Your task to perform on an android device: Search for sony triple a on bestbuy, select the first entry, and add it to the cart. Image 0: 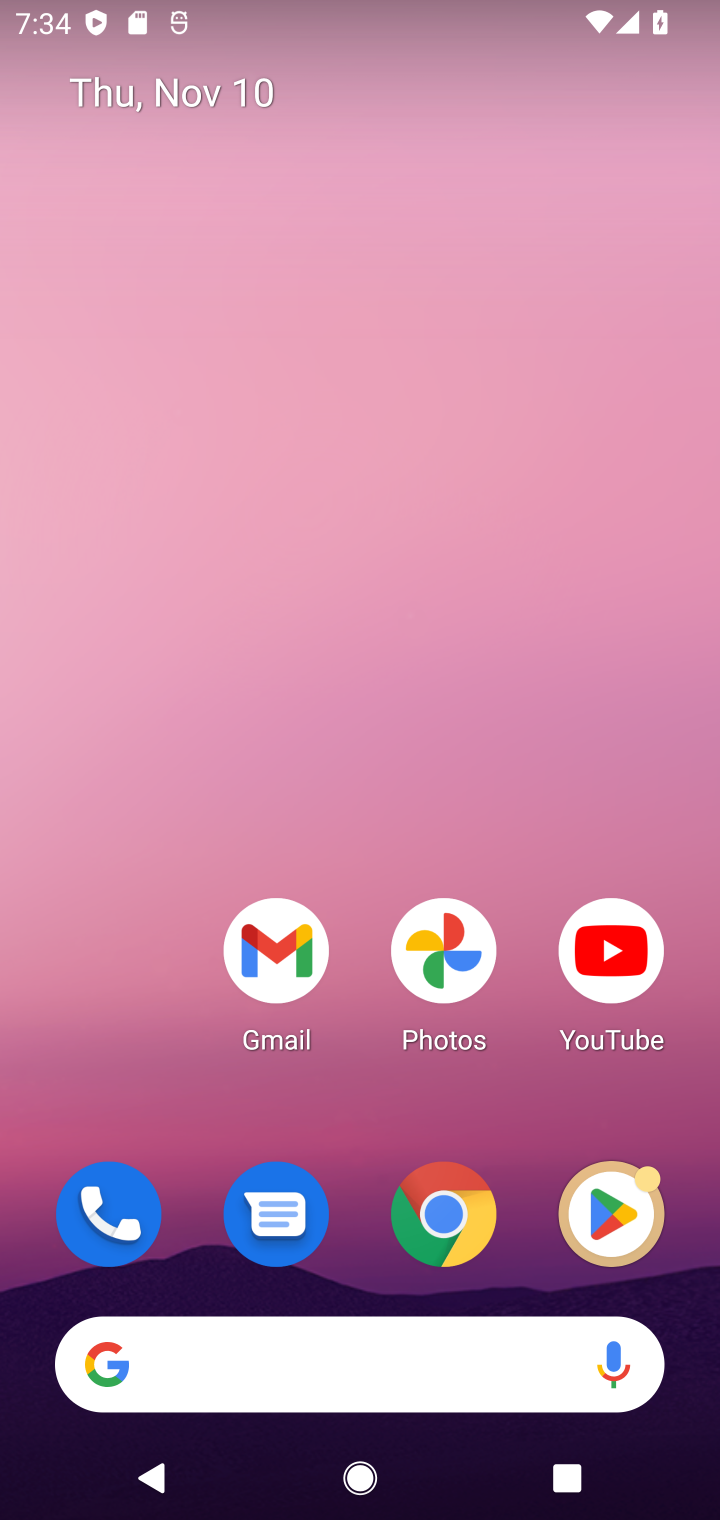
Step 0: drag from (602, 344) to (696, 118)
Your task to perform on an android device: Search for sony triple a on bestbuy, select the first entry, and add it to the cart. Image 1: 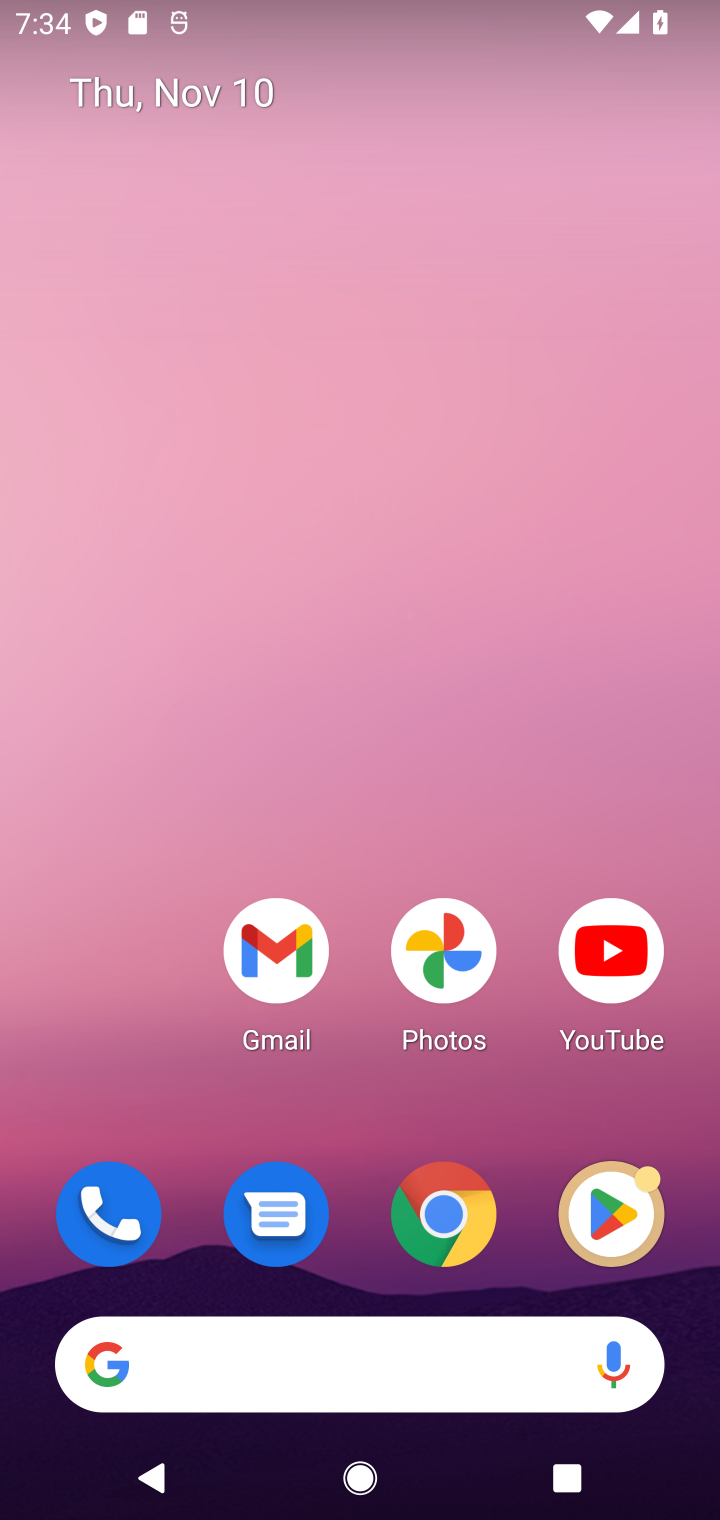
Step 1: drag from (405, 740) to (536, 146)
Your task to perform on an android device: Search for sony triple a on bestbuy, select the first entry, and add it to the cart. Image 2: 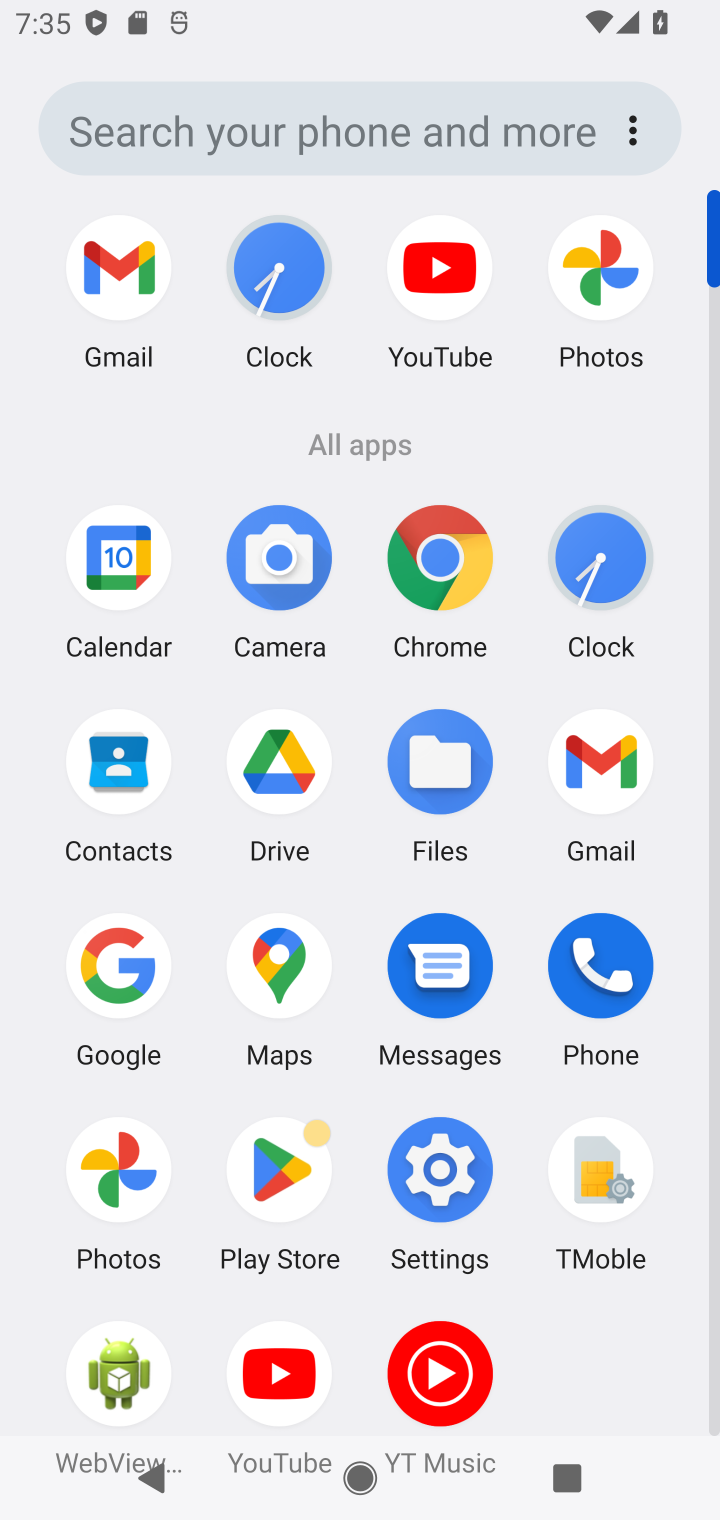
Step 2: click (424, 586)
Your task to perform on an android device: Search for sony triple a on bestbuy, select the first entry, and add it to the cart. Image 3: 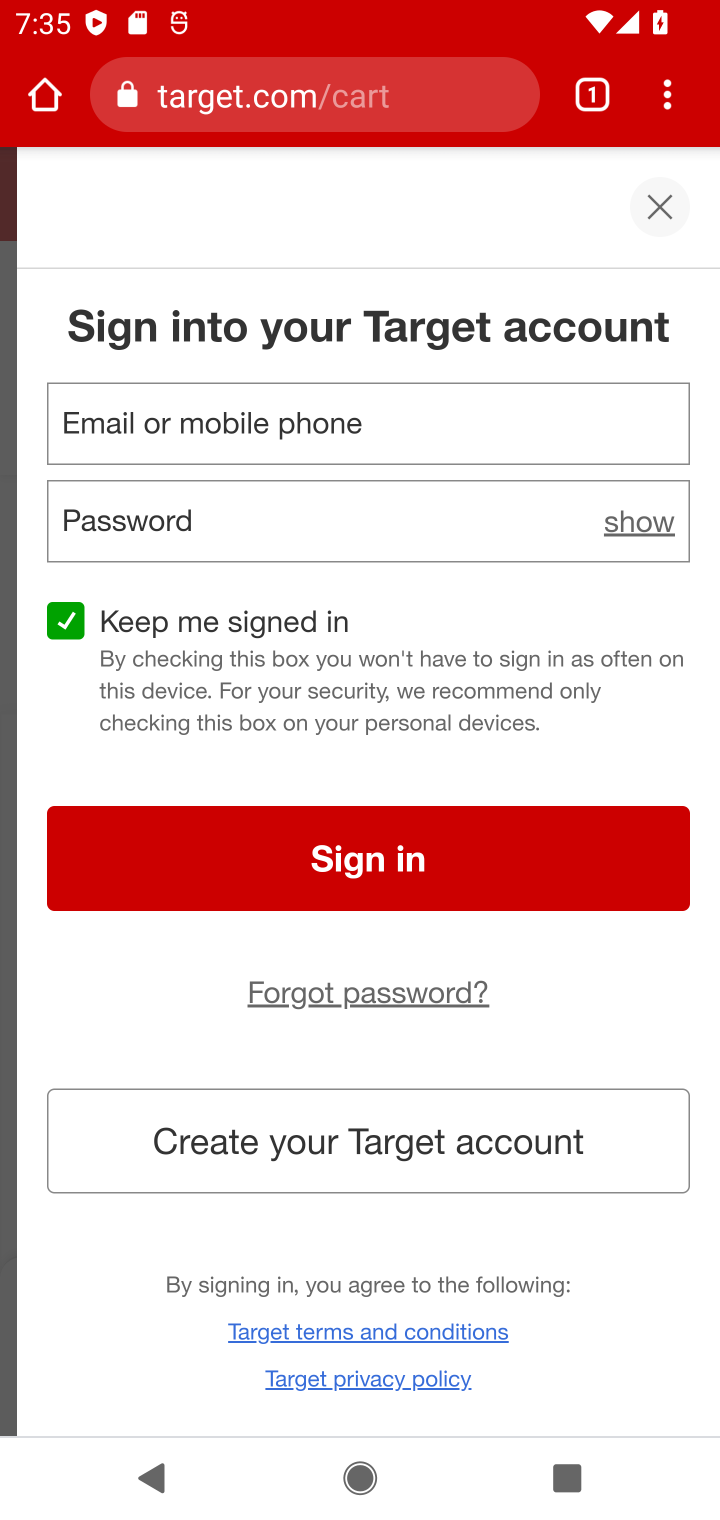
Step 3: click (328, 110)
Your task to perform on an android device: Search for sony triple a on bestbuy, select the first entry, and add it to the cart. Image 4: 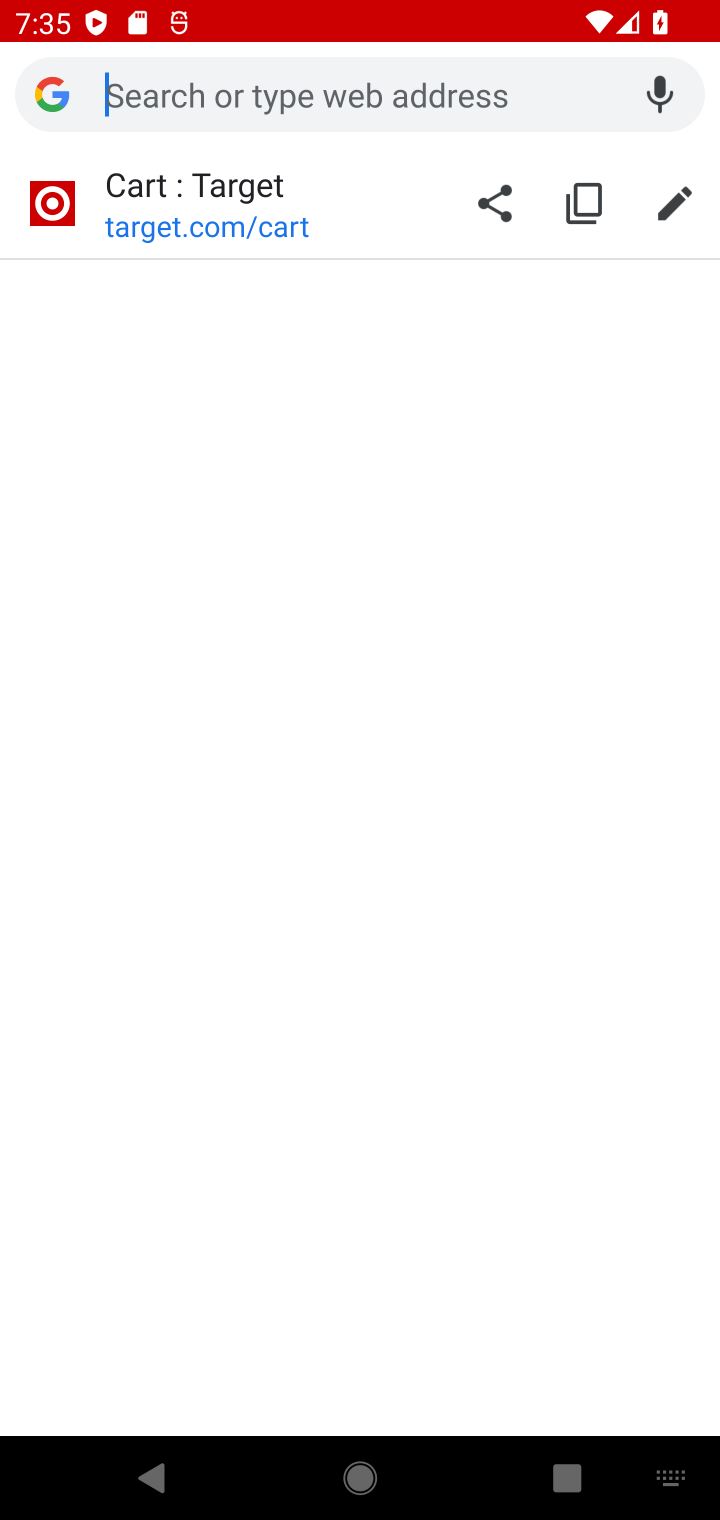
Step 4: click (364, 1054)
Your task to perform on an android device: Search for sony triple a on bestbuy, select the first entry, and add it to the cart. Image 5: 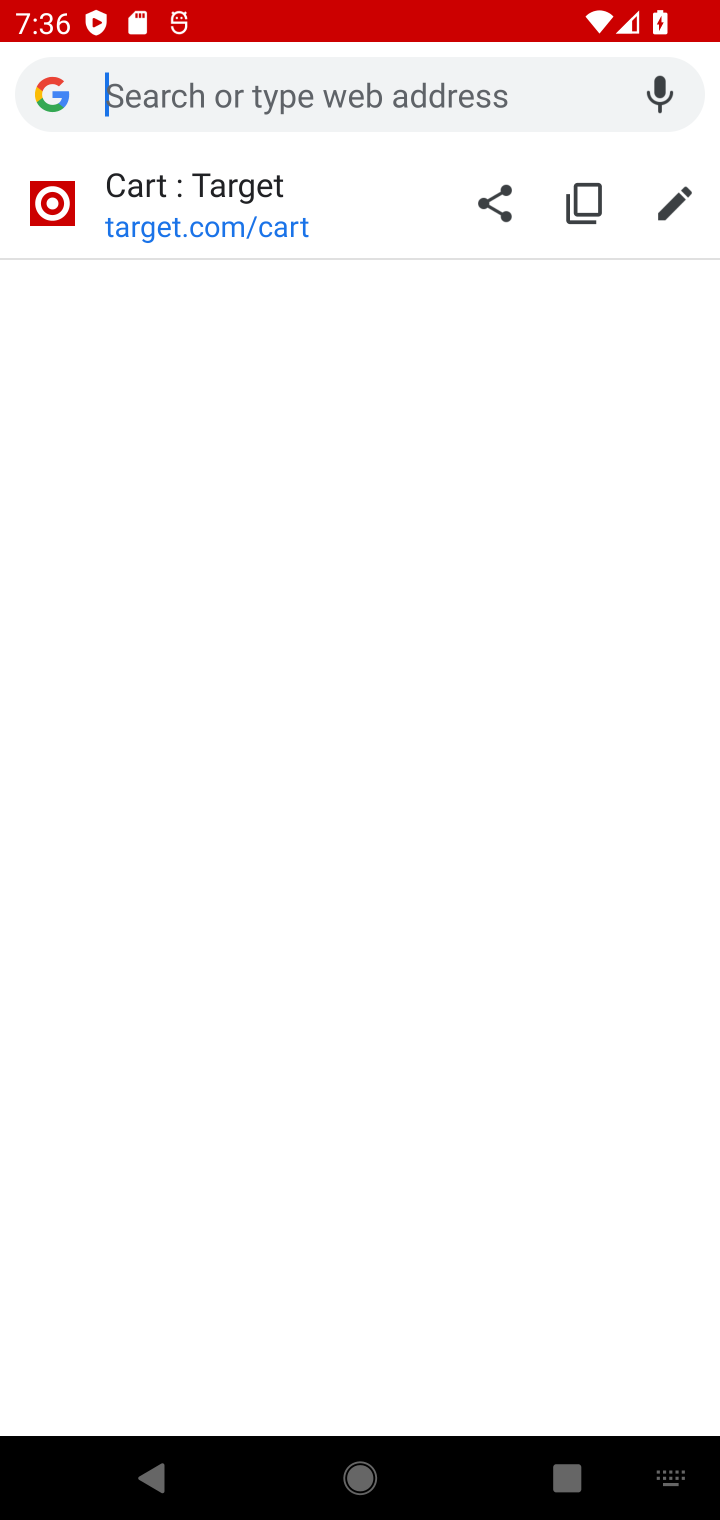
Step 5: type "bestbuy"
Your task to perform on an android device: Search for sony triple a on bestbuy, select the first entry, and add it to the cart. Image 6: 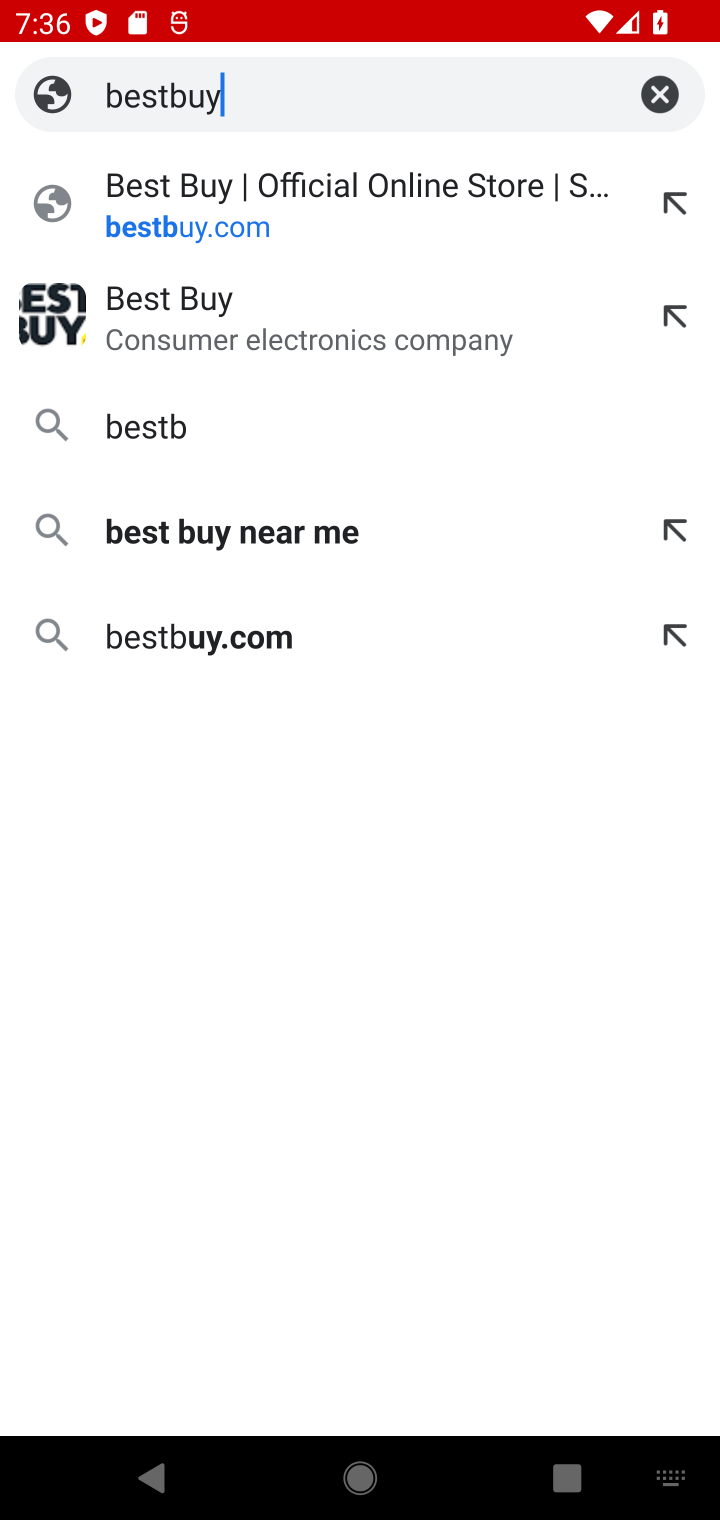
Step 6: press enter
Your task to perform on an android device: Search for sony triple a on bestbuy, select the first entry, and add it to the cart. Image 7: 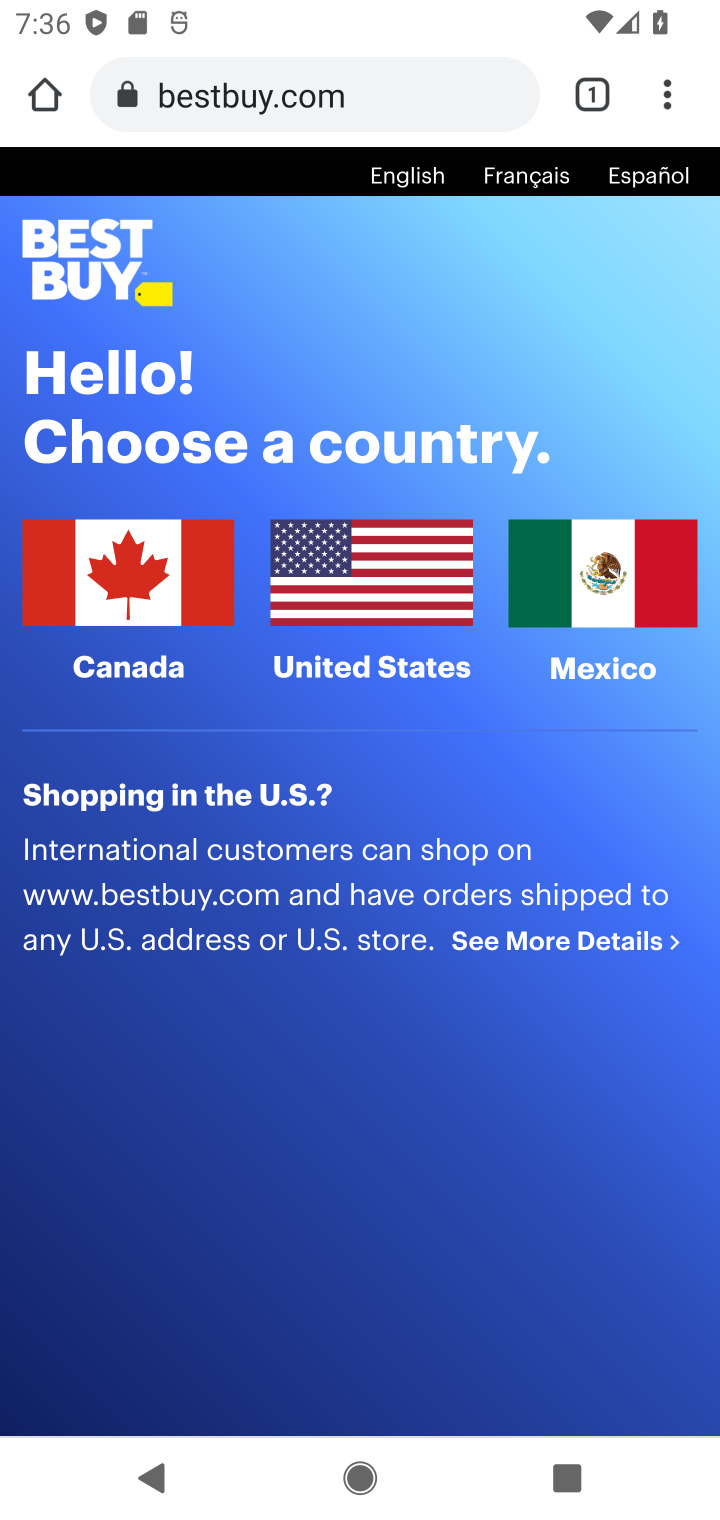
Step 7: click (82, 563)
Your task to perform on an android device: Search for sony triple a on bestbuy, select the first entry, and add it to the cart. Image 8: 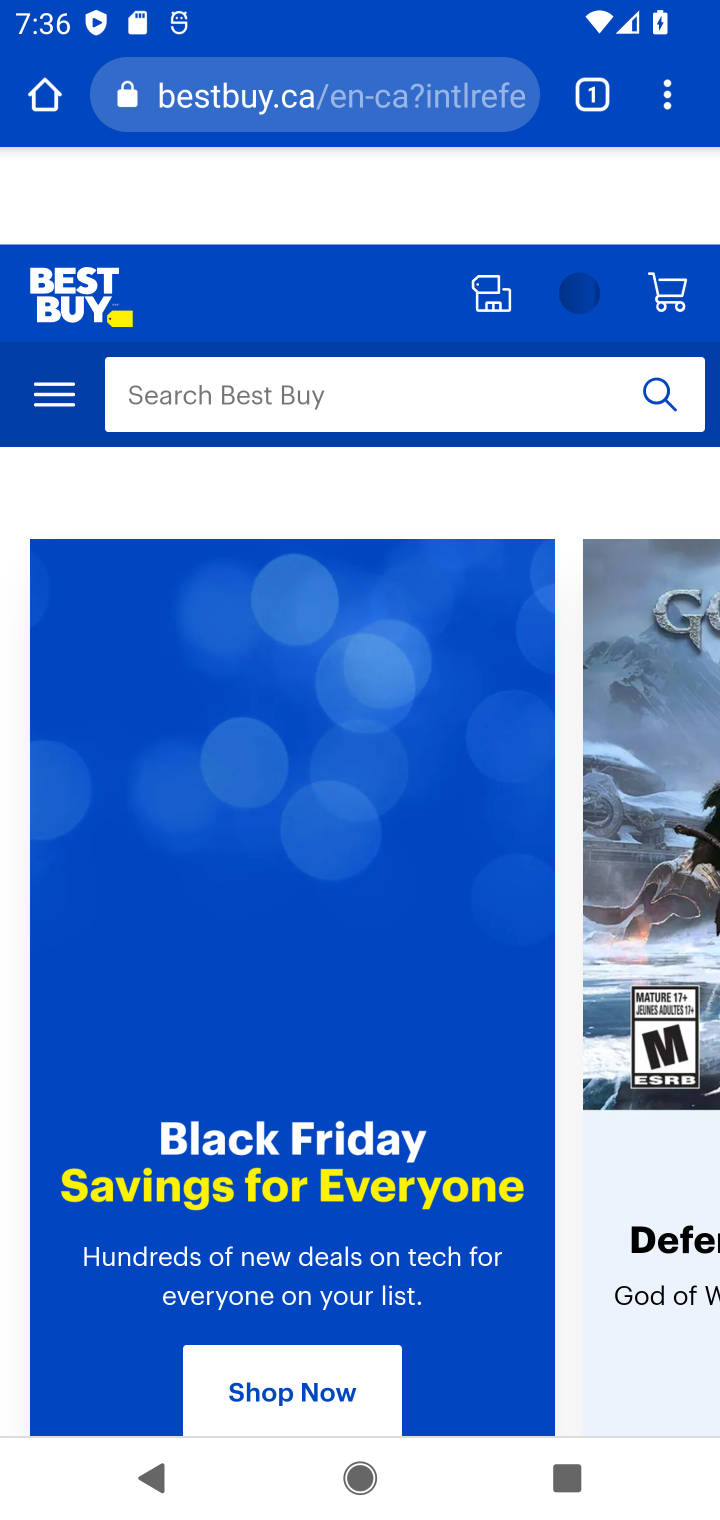
Step 8: click (222, 377)
Your task to perform on an android device: Search for sony triple a on bestbuy, select the first entry, and add it to the cart. Image 9: 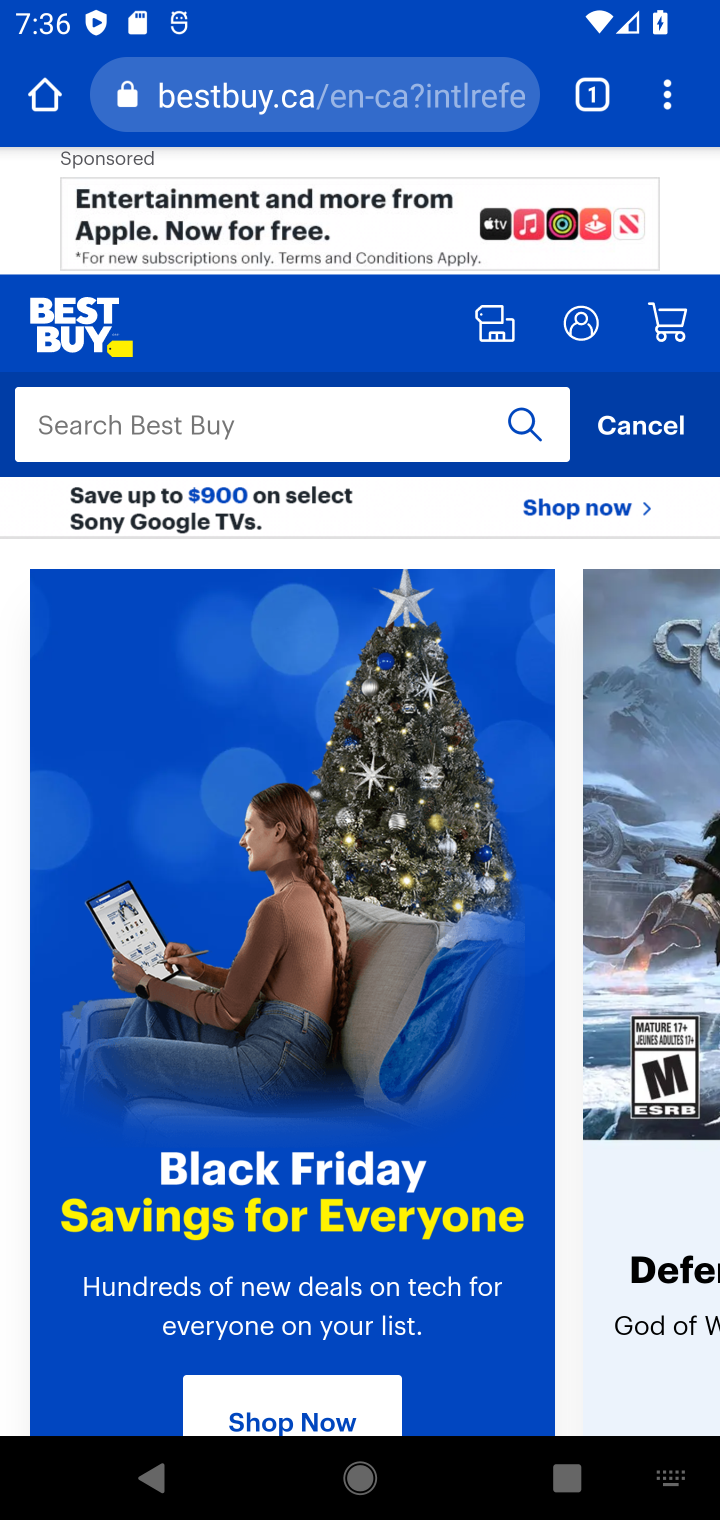
Step 9: press enter
Your task to perform on an android device: Search for sony triple a on bestbuy, select the first entry, and add it to the cart. Image 10: 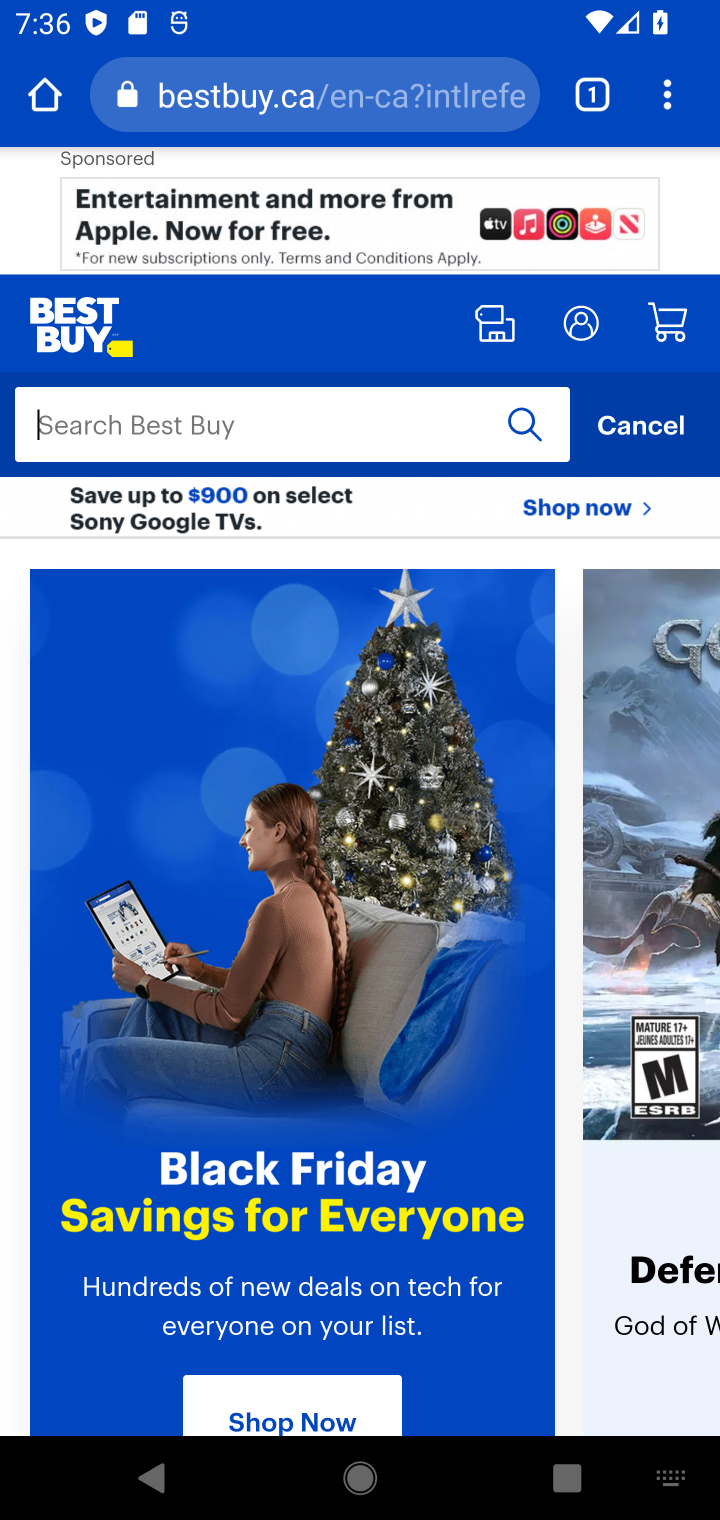
Step 10: type " sony triple"
Your task to perform on an android device: Search for sony triple a on bestbuy, select the first entry, and add it to the cart. Image 11: 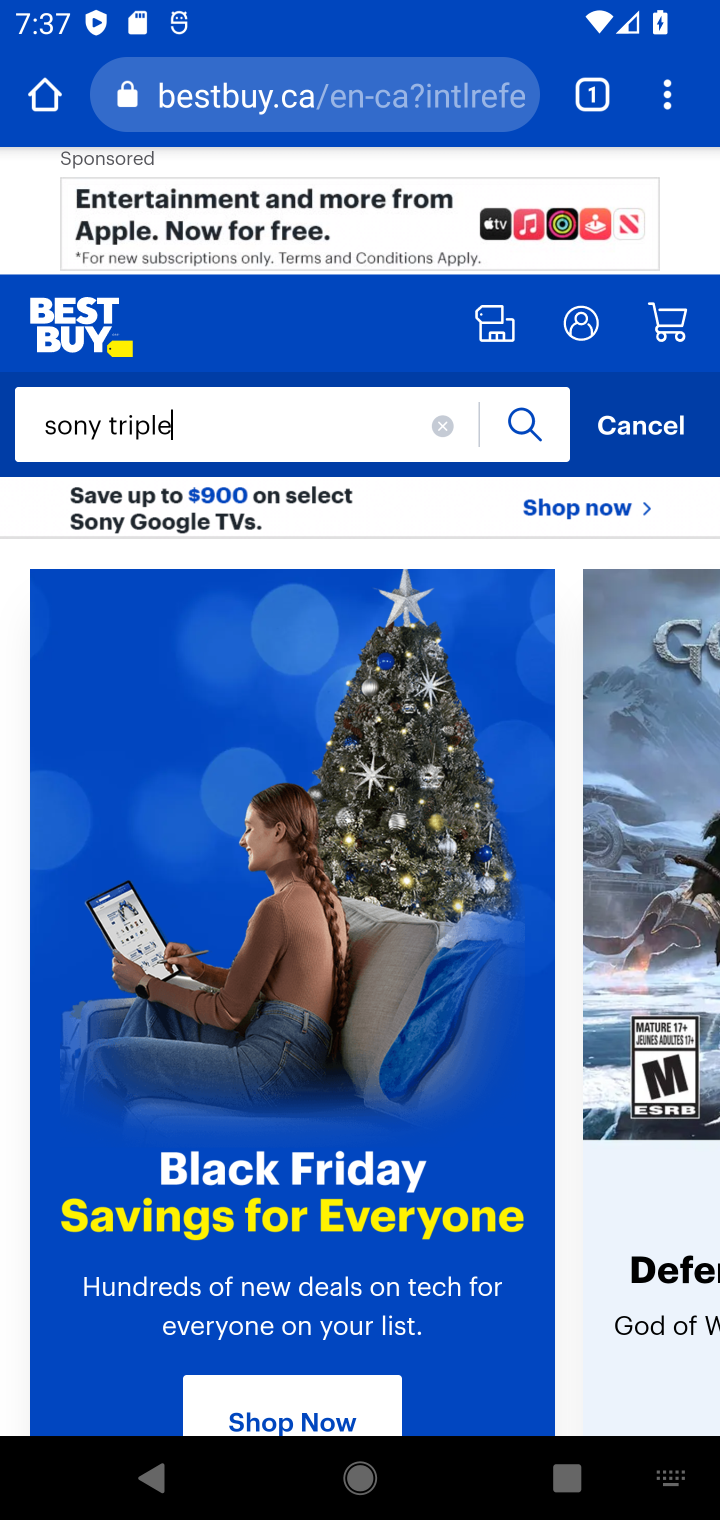
Step 11: press enter
Your task to perform on an android device: Search for sony triple a on bestbuy, select the first entry, and add it to the cart. Image 12: 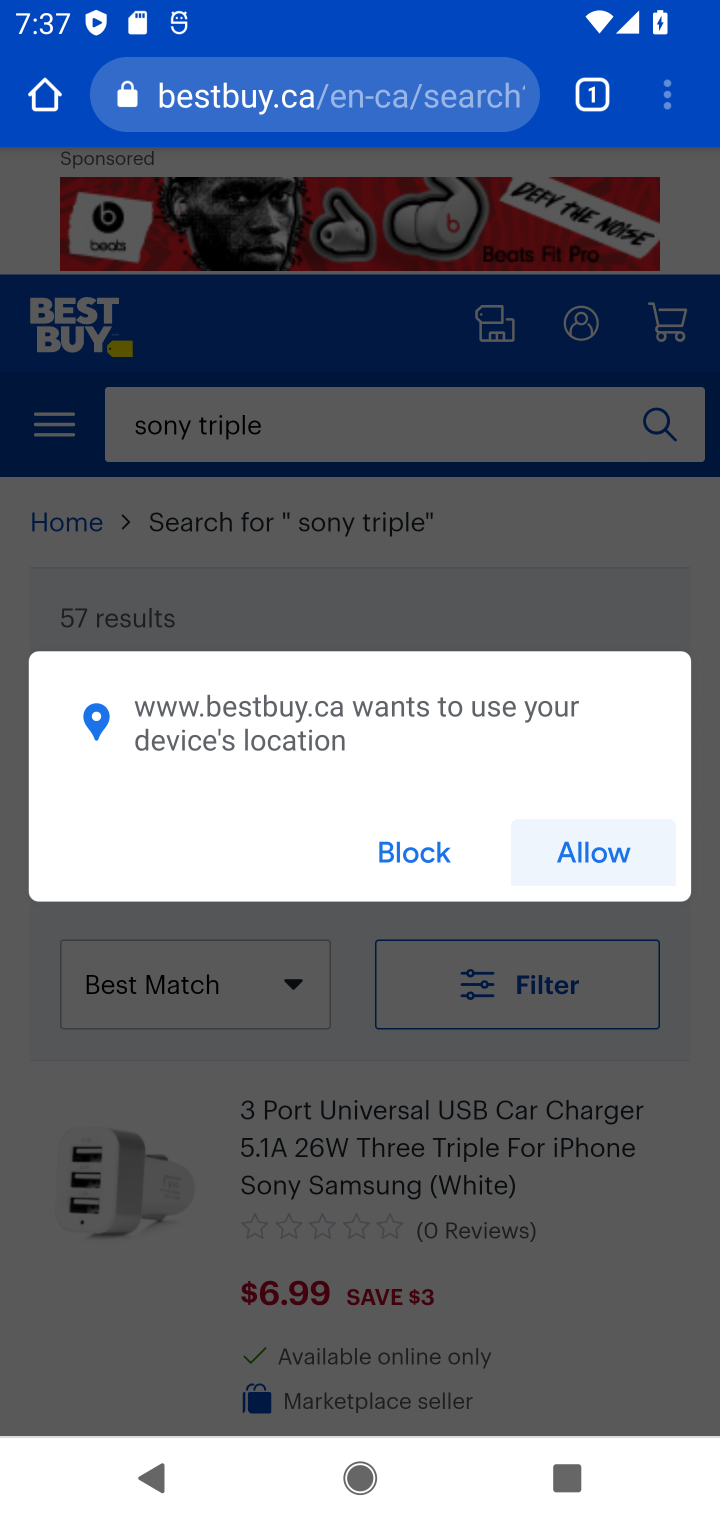
Step 12: click (604, 847)
Your task to perform on an android device: Search for sony triple a on bestbuy, select the first entry, and add it to the cart. Image 13: 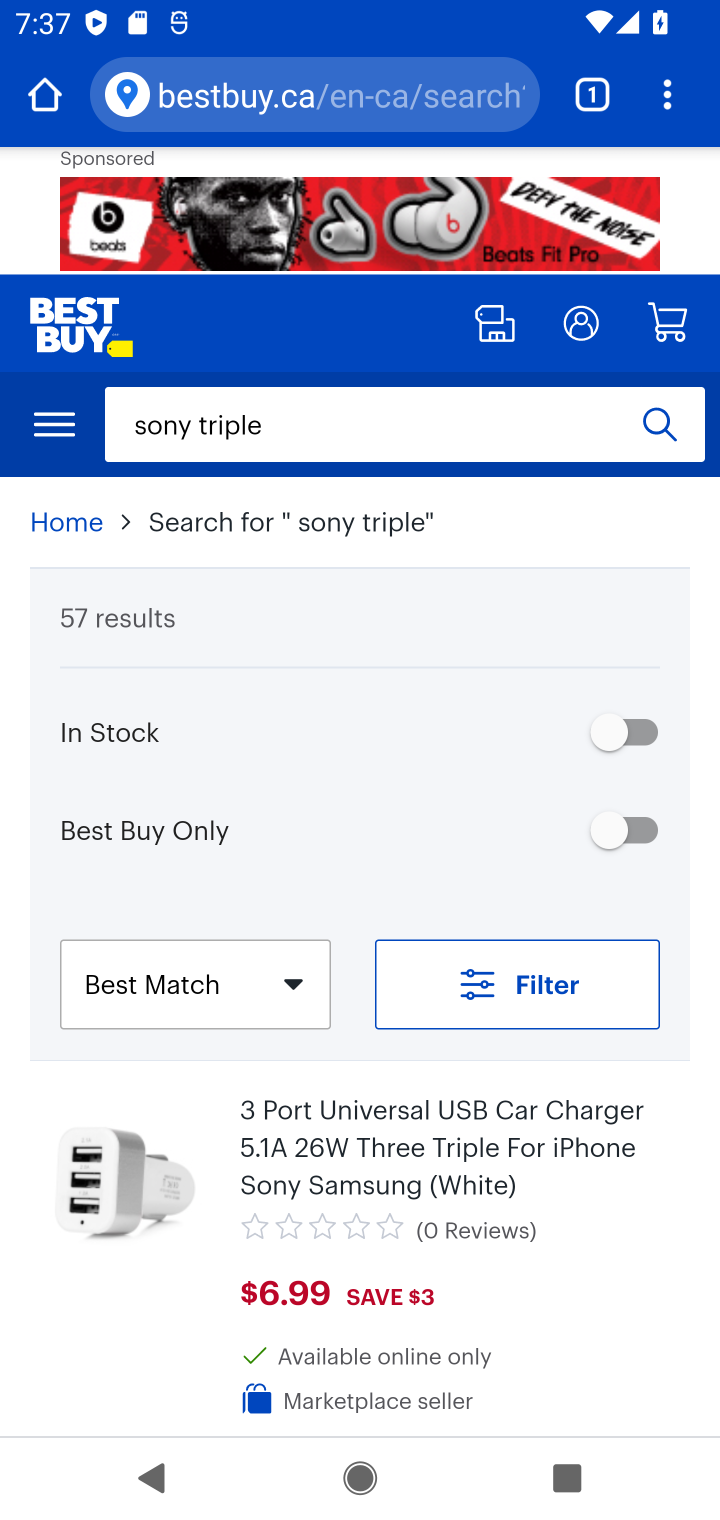
Step 13: task complete